Your task to perform on an android device: allow cookies in the chrome app Image 0: 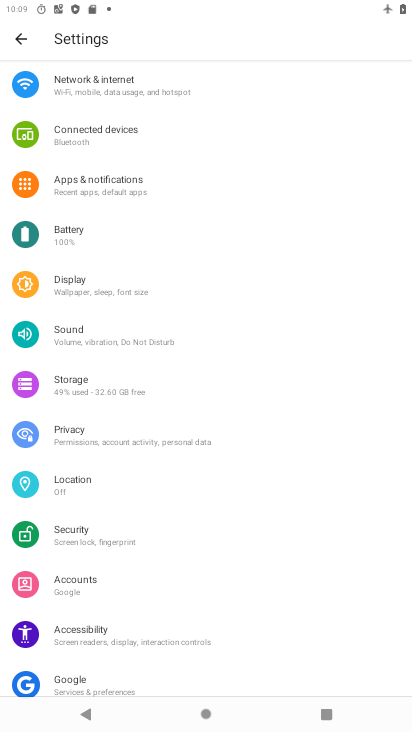
Step 0: press home button
Your task to perform on an android device: allow cookies in the chrome app Image 1: 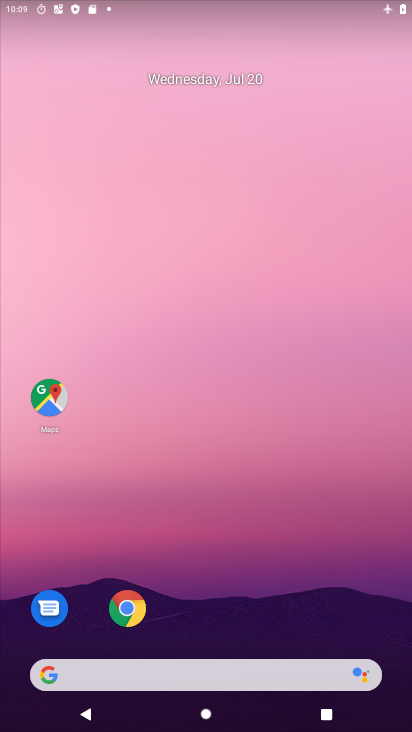
Step 1: click (133, 599)
Your task to perform on an android device: allow cookies in the chrome app Image 2: 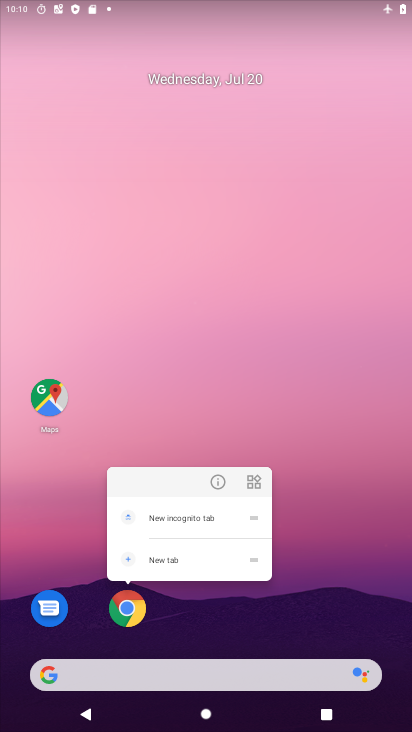
Step 2: click (147, 603)
Your task to perform on an android device: allow cookies in the chrome app Image 3: 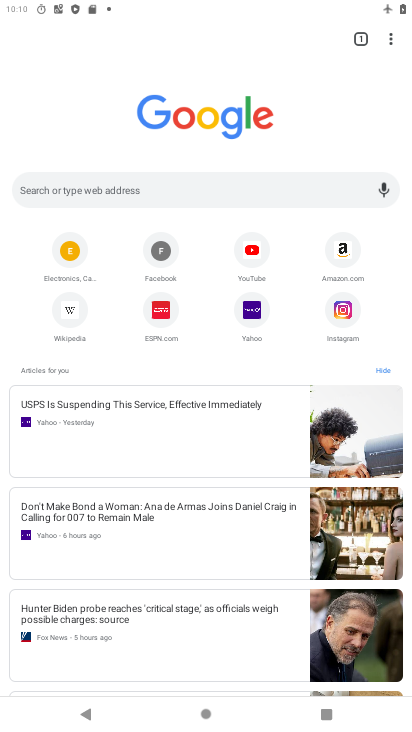
Step 3: click (389, 45)
Your task to perform on an android device: allow cookies in the chrome app Image 4: 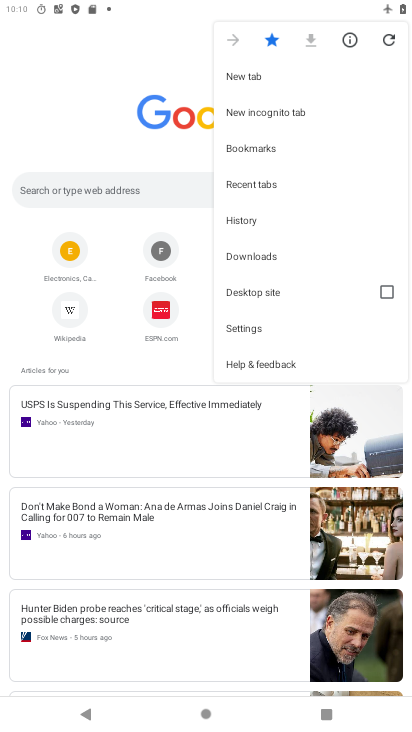
Step 4: click (264, 333)
Your task to perform on an android device: allow cookies in the chrome app Image 5: 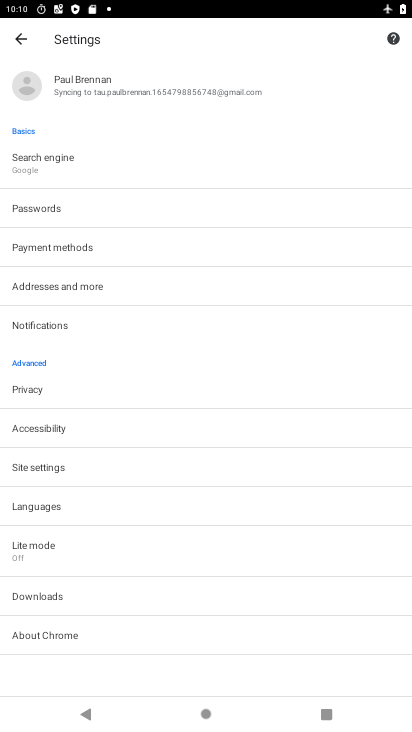
Step 5: click (90, 471)
Your task to perform on an android device: allow cookies in the chrome app Image 6: 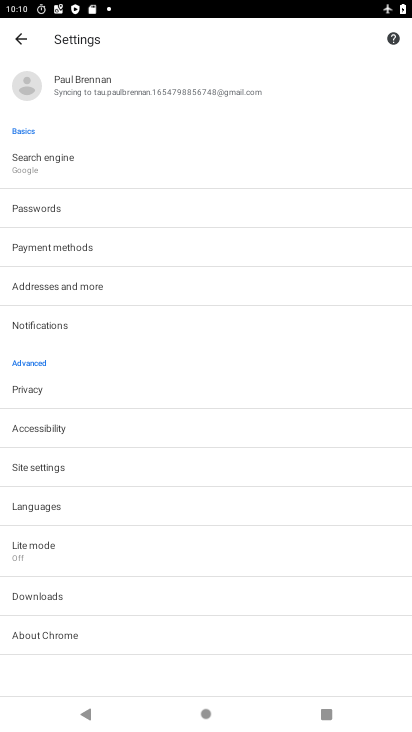
Step 6: click (90, 471)
Your task to perform on an android device: allow cookies in the chrome app Image 7: 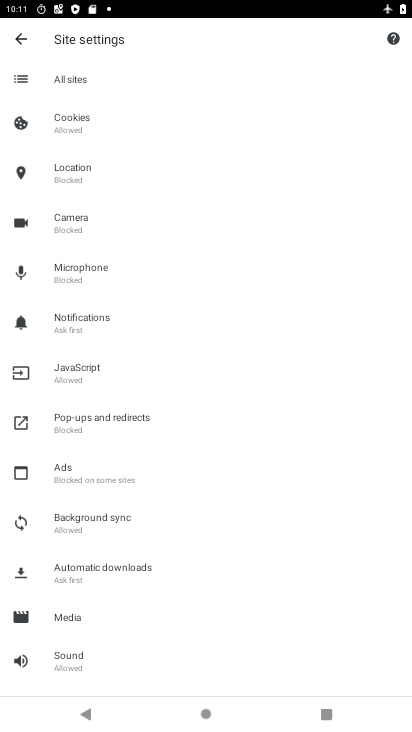
Step 7: click (96, 129)
Your task to perform on an android device: allow cookies in the chrome app Image 8: 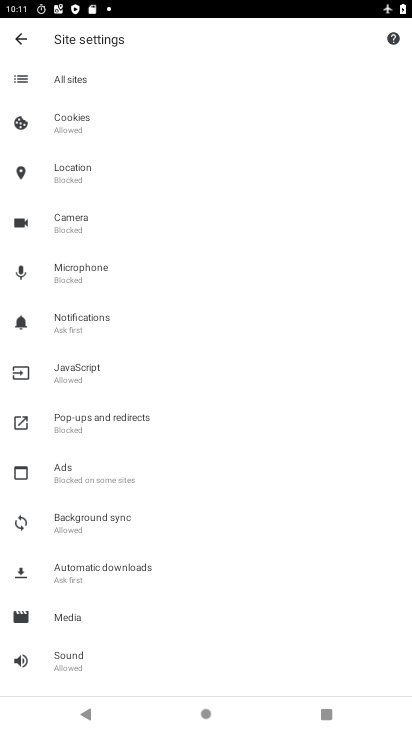
Step 8: click (96, 129)
Your task to perform on an android device: allow cookies in the chrome app Image 9: 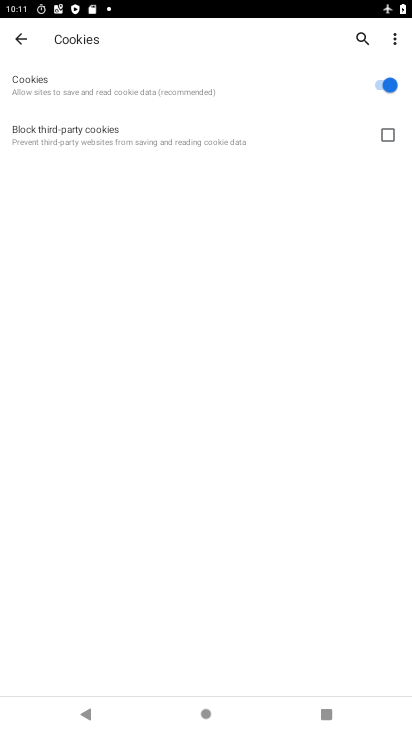
Step 9: task complete